Your task to perform on an android device: Go to privacy settings Image 0: 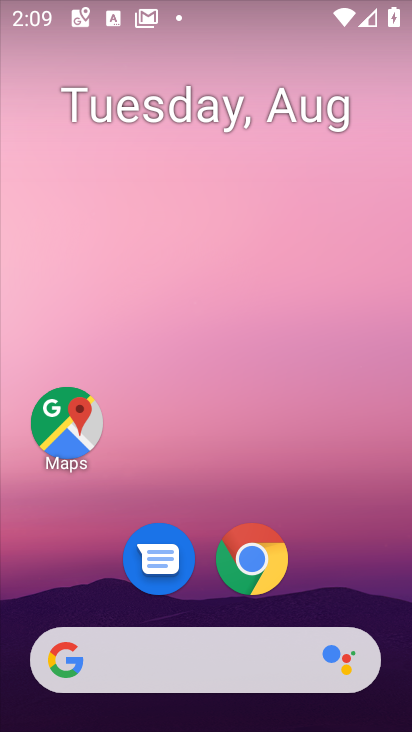
Step 0: drag from (221, 482) to (240, 107)
Your task to perform on an android device: Go to privacy settings Image 1: 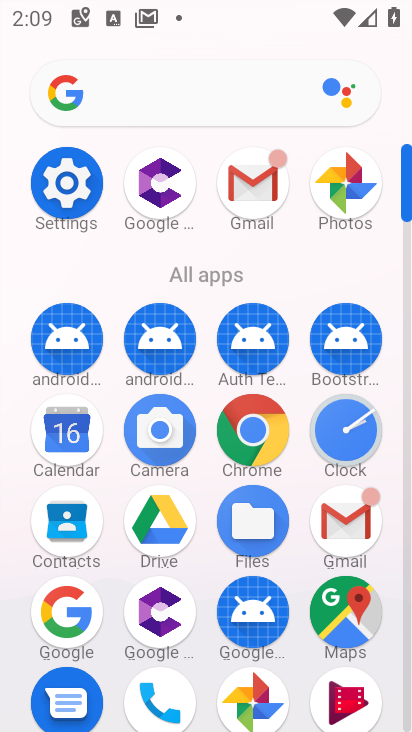
Step 1: click (78, 182)
Your task to perform on an android device: Go to privacy settings Image 2: 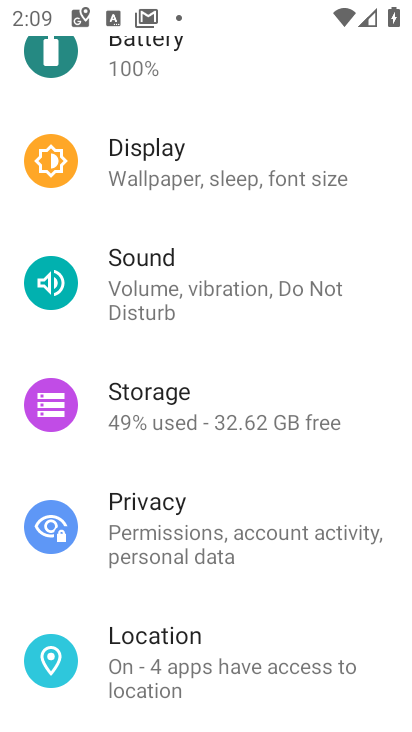
Step 2: click (170, 530)
Your task to perform on an android device: Go to privacy settings Image 3: 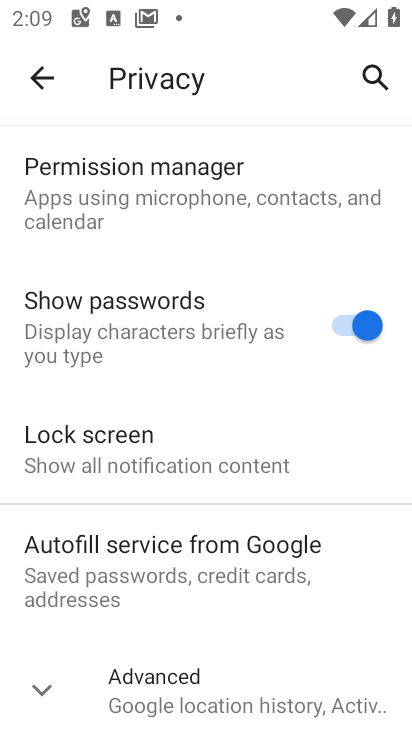
Step 3: task complete